Your task to perform on an android device: Go to privacy settings Image 0: 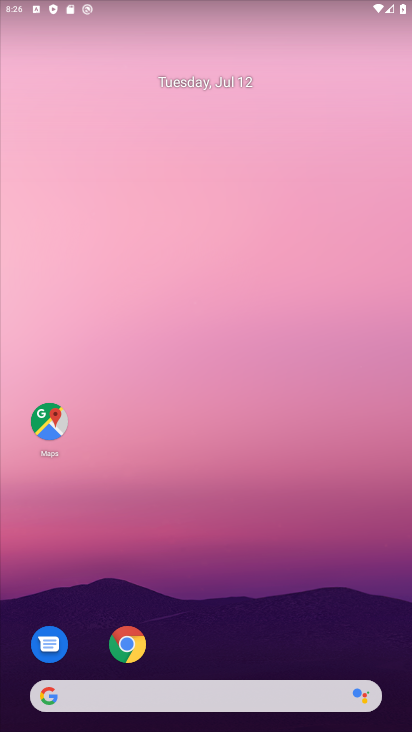
Step 0: drag from (343, 645) to (229, 106)
Your task to perform on an android device: Go to privacy settings Image 1: 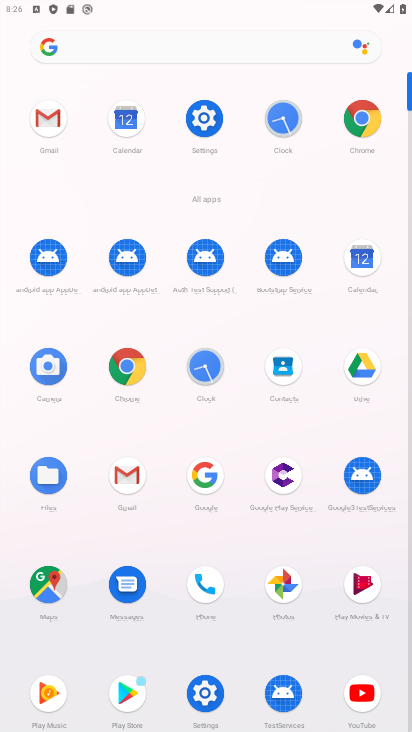
Step 1: click (203, 694)
Your task to perform on an android device: Go to privacy settings Image 2: 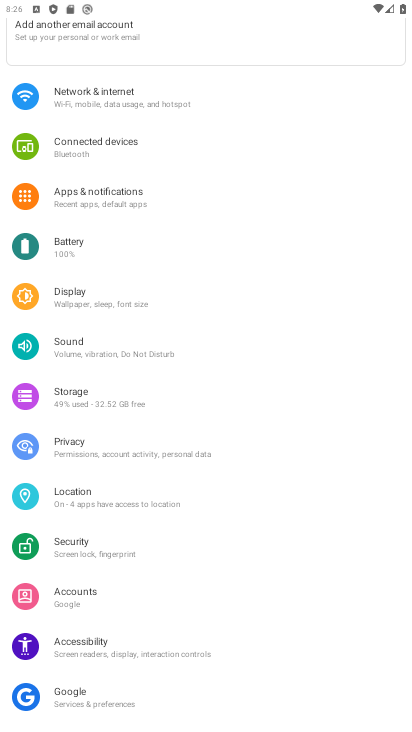
Step 2: click (69, 436)
Your task to perform on an android device: Go to privacy settings Image 3: 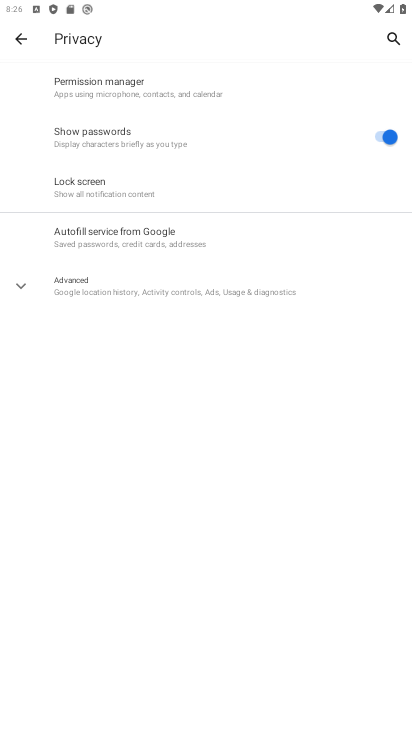
Step 3: click (21, 285)
Your task to perform on an android device: Go to privacy settings Image 4: 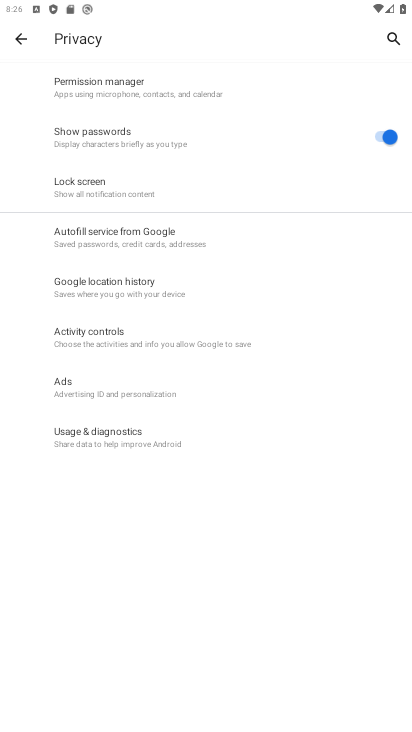
Step 4: task complete